Your task to perform on an android device: Add "apple airpods" to the cart on ebay.com, then select checkout. Image 0: 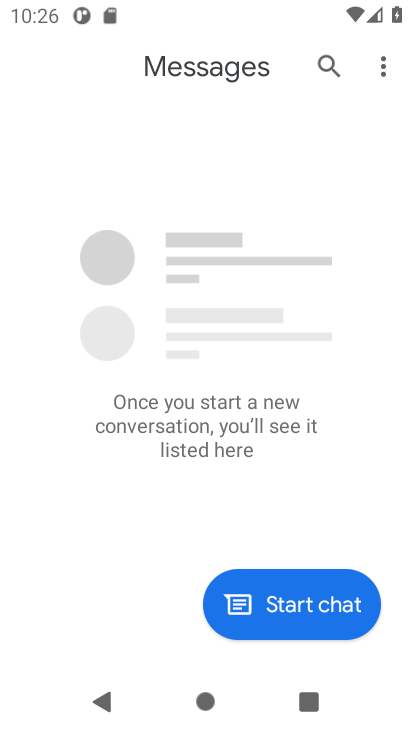
Step 0: press home button
Your task to perform on an android device: Add "apple airpods" to the cart on ebay.com, then select checkout. Image 1: 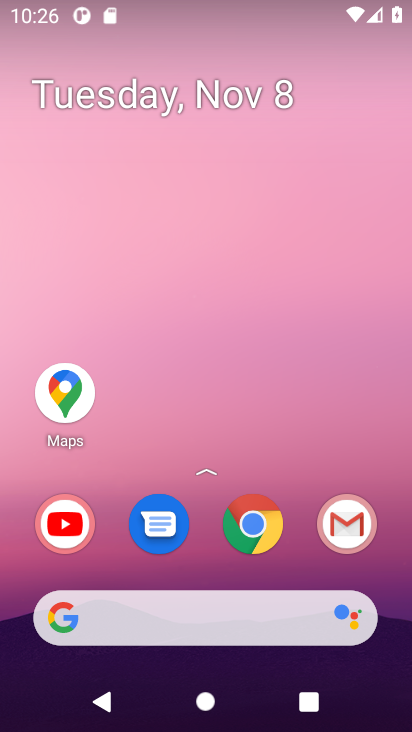
Step 1: click (267, 530)
Your task to perform on an android device: Add "apple airpods" to the cart on ebay.com, then select checkout. Image 2: 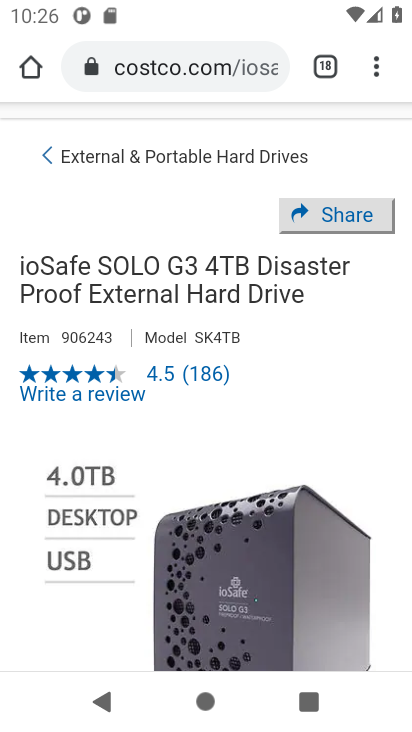
Step 2: click (168, 72)
Your task to perform on an android device: Add "apple airpods" to the cart on ebay.com, then select checkout. Image 3: 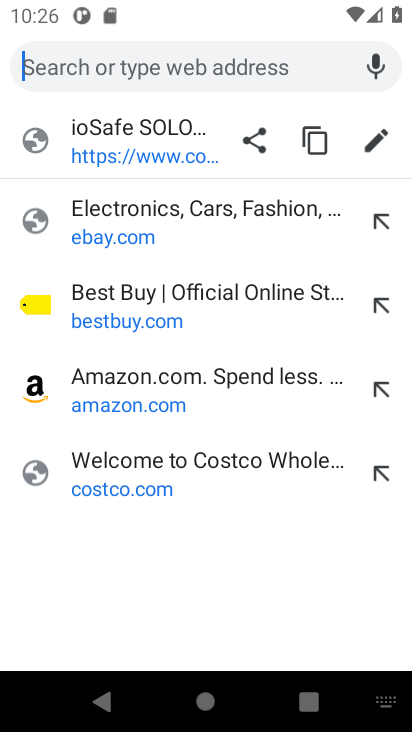
Step 3: click (102, 240)
Your task to perform on an android device: Add "apple airpods" to the cart on ebay.com, then select checkout. Image 4: 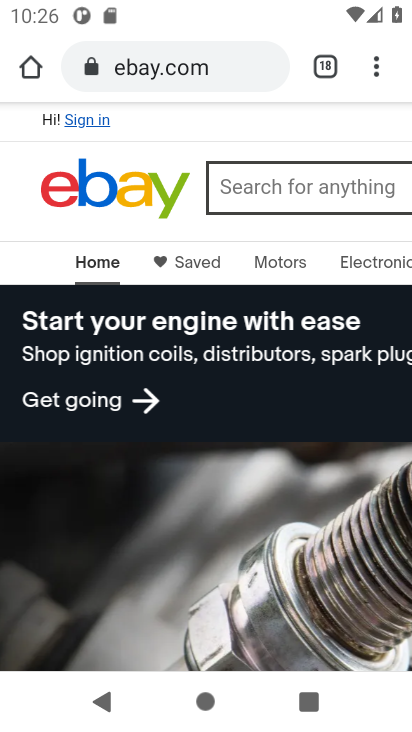
Step 4: click (270, 177)
Your task to perform on an android device: Add "apple airpods" to the cart on ebay.com, then select checkout. Image 5: 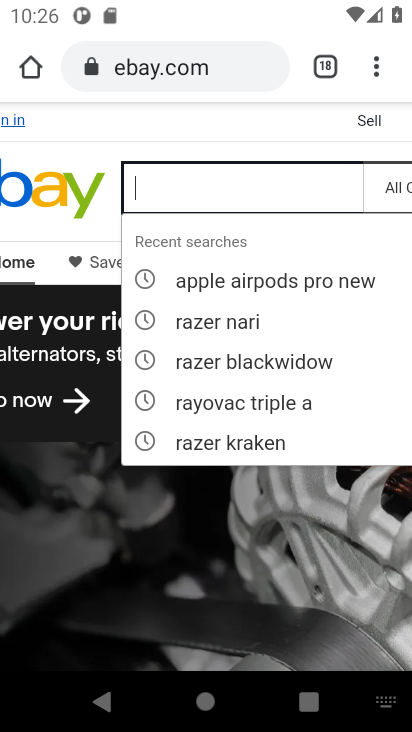
Step 5: type "apple airpods"
Your task to perform on an android device: Add "apple airpods" to the cart on ebay.com, then select checkout. Image 6: 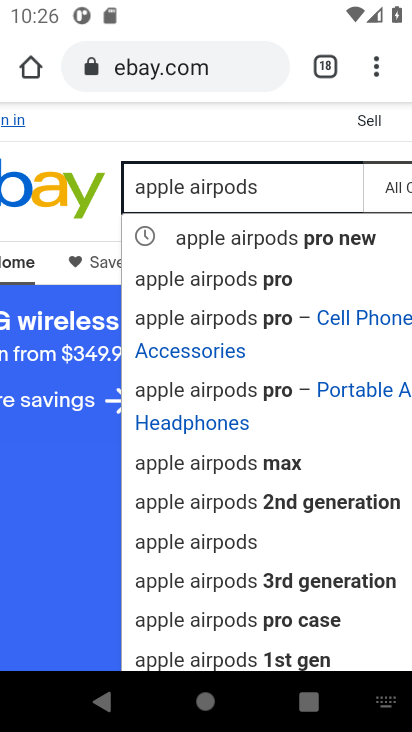
Step 6: click (239, 542)
Your task to perform on an android device: Add "apple airpods" to the cart on ebay.com, then select checkout. Image 7: 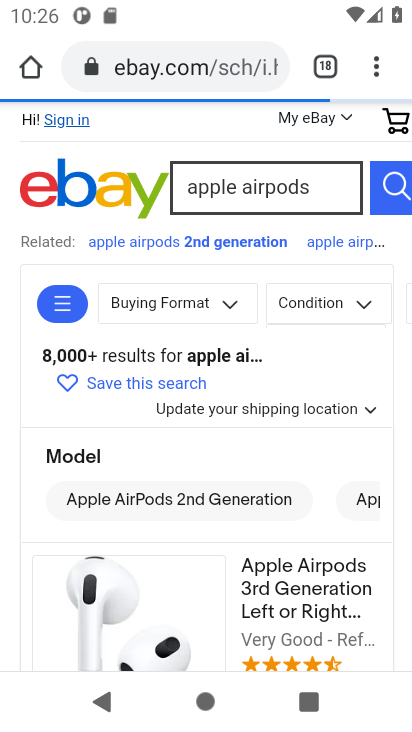
Step 7: drag from (239, 542) to (229, 392)
Your task to perform on an android device: Add "apple airpods" to the cart on ebay.com, then select checkout. Image 8: 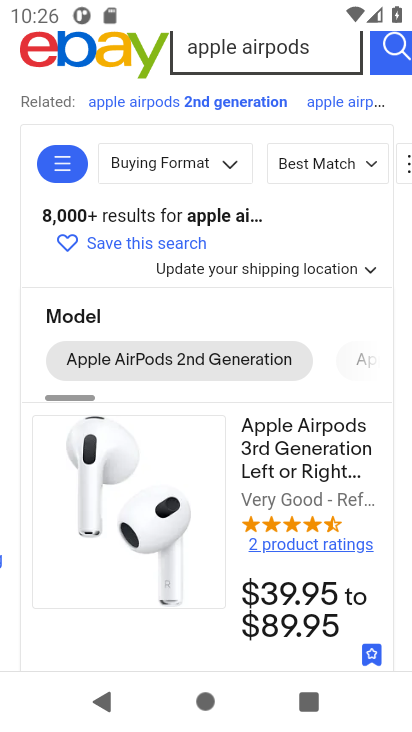
Step 8: drag from (163, 489) to (159, 346)
Your task to perform on an android device: Add "apple airpods" to the cart on ebay.com, then select checkout. Image 9: 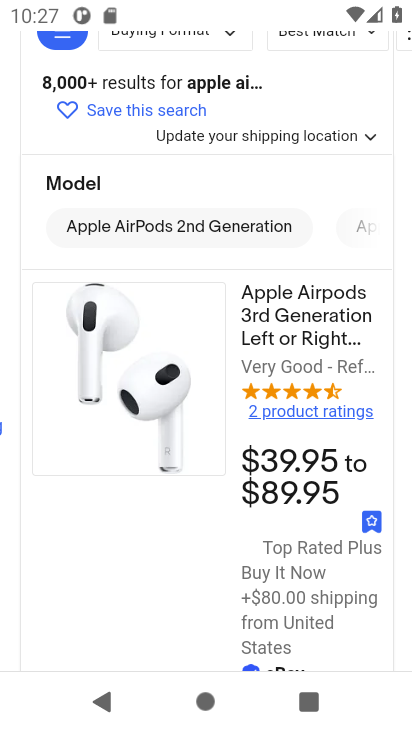
Step 9: drag from (184, 503) to (149, 341)
Your task to perform on an android device: Add "apple airpods" to the cart on ebay.com, then select checkout. Image 10: 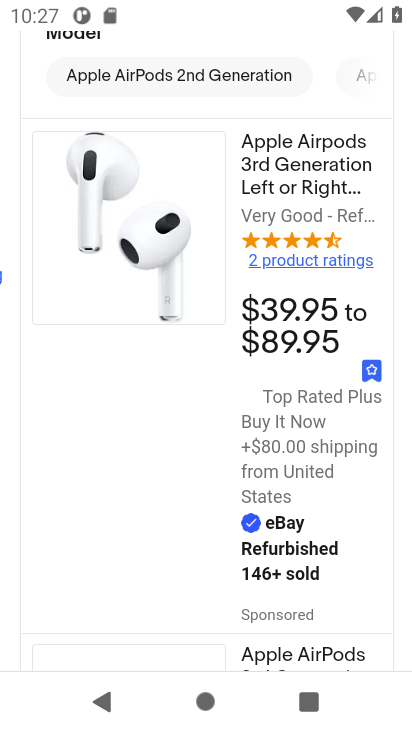
Step 10: click (116, 244)
Your task to perform on an android device: Add "apple airpods" to the cart on ebay.com, then select checkout. Image 11: 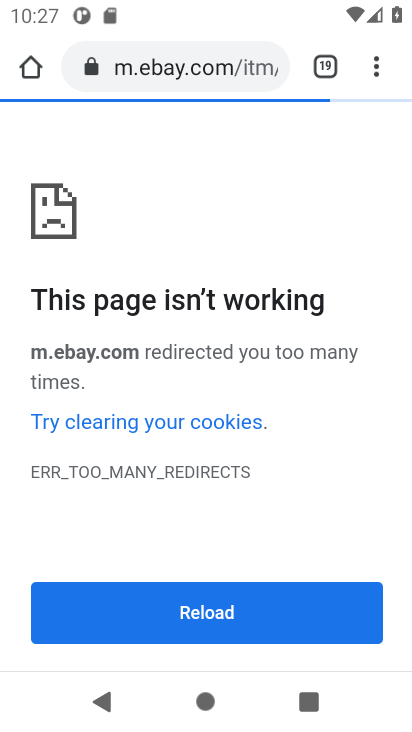
Step 11: task complete